Your task to perform on an android device: Go to notification settings Image 0: 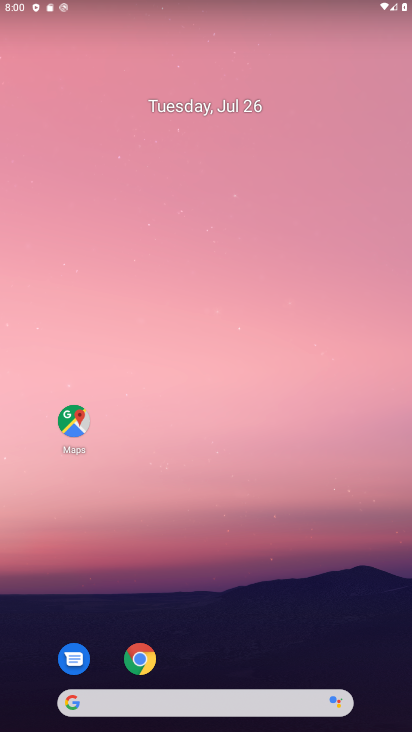
Step 0: drag from (241, 664) to (258, 108)
Your task to perform on an android device: Go to notification settings Image 1: 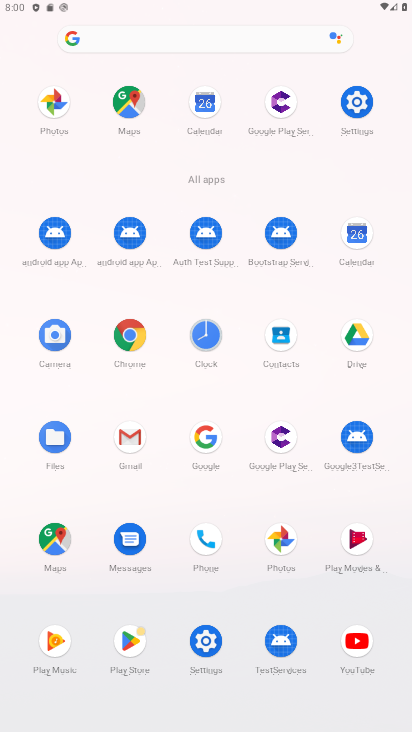
Step 1: click (349, 113)
Your task to perform on an android device: Go to notification settings Image 2: 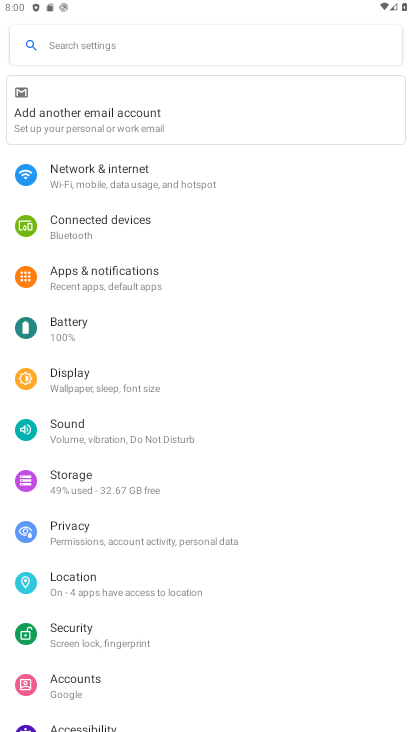
Step 2: click (158, 278)
Your task to perform on an android device: Go to notification settings Image 3: 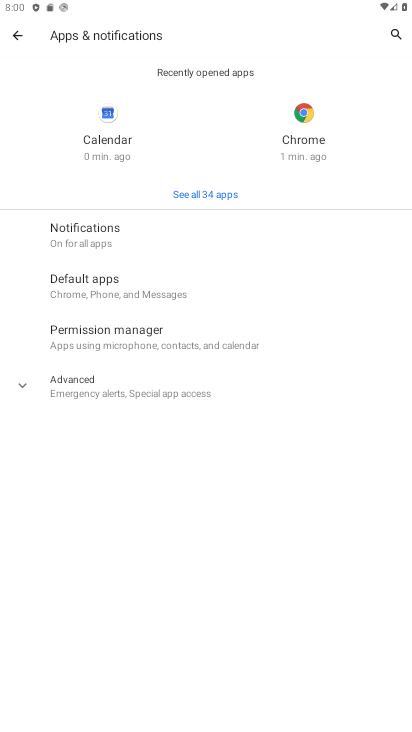
Step 3: click (66, 385)
Your task to perform on an android device: Go to notification settings Image 4: 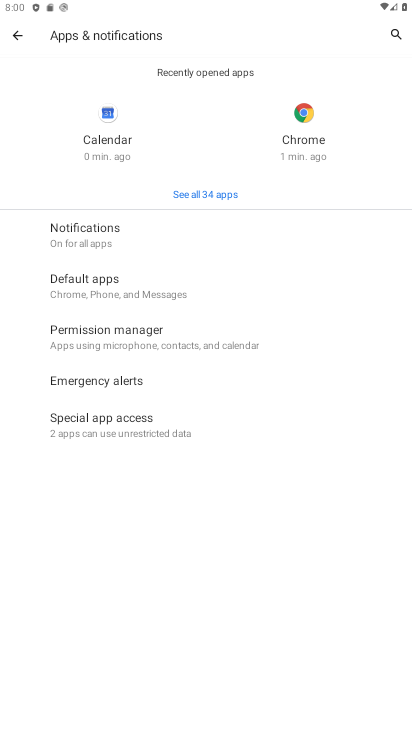
Step 4: click (108, 238)
Your task to perform on an android device: Go to notification settings Image 5: 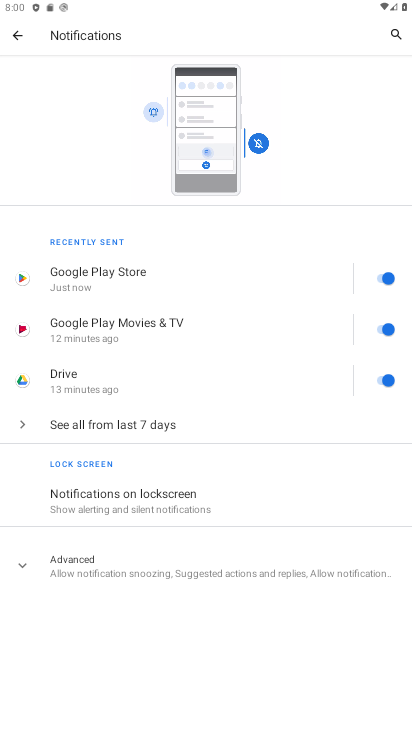
Step 5: task complete